Your task to perform on an android device: Open Yahoo.com Image 0: 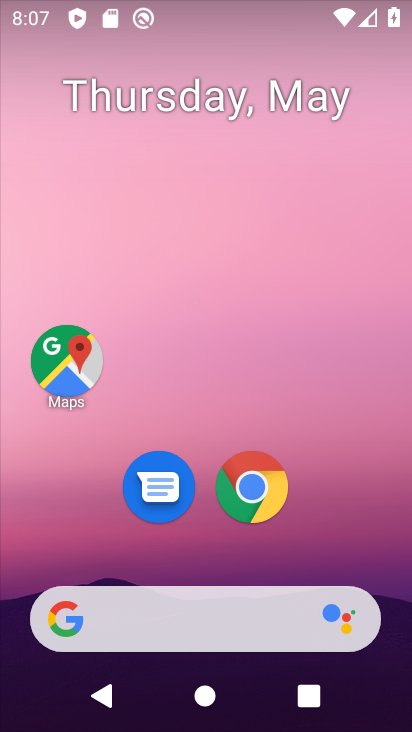
Step 0: click (234, 498)
Your task to perform on an android device: Open Yahoo.com Image 1: 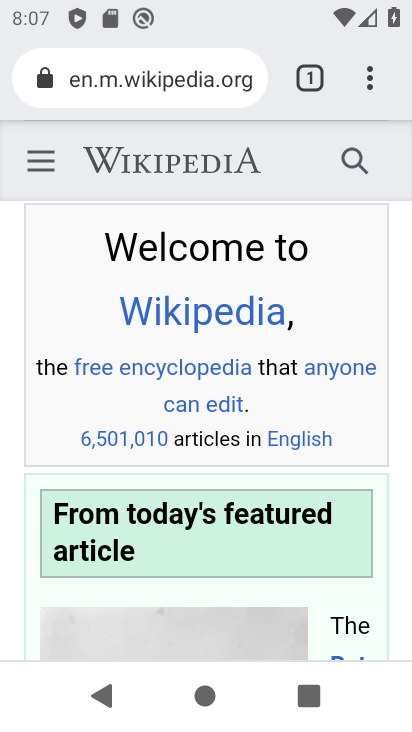
Step 1: click (314, 88)
Your task to perform on an android device: Open Yahoo.com Image 2: 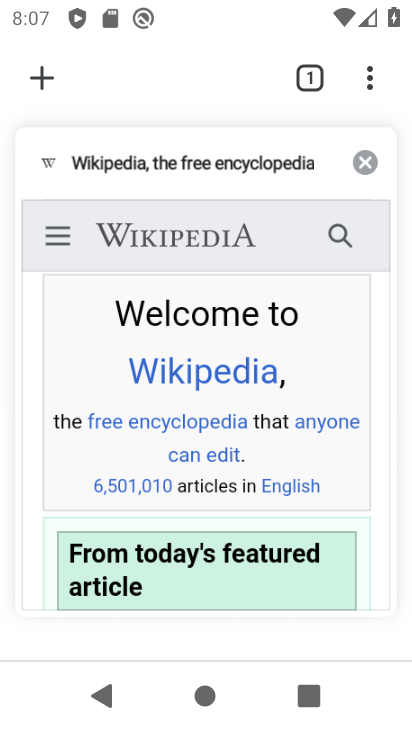
Step 2: click (42, 87)
Your task to perform on an android device: Open Yahoo.com Image 3: 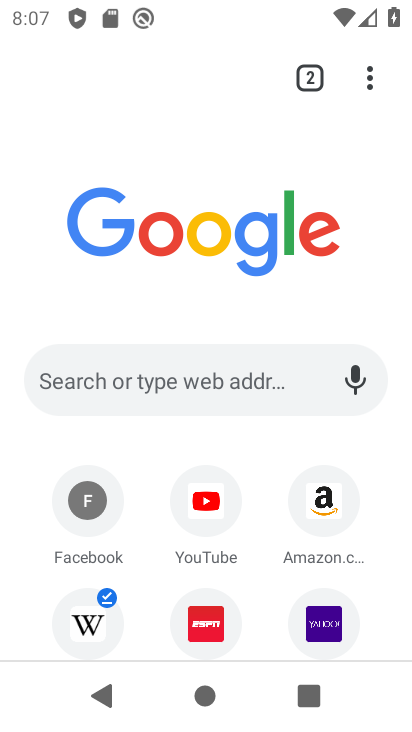
Step 3: click (326, 622)
Your task to perform on an android device: Open Yahoo.com Image 4: 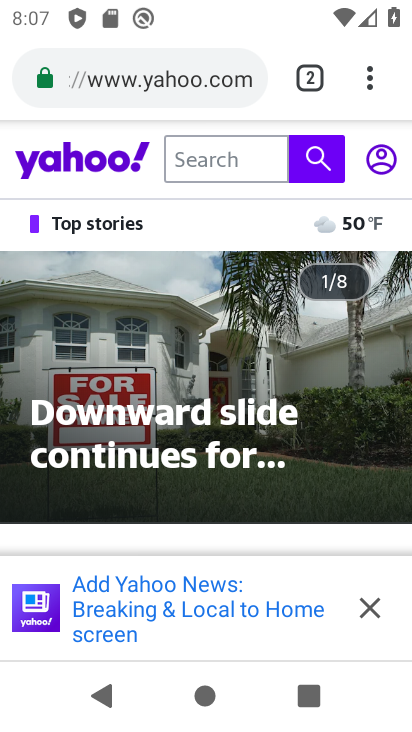
Step 4: task complete